Your task to perform on an android device: change your default location settings in chrome Image 0: 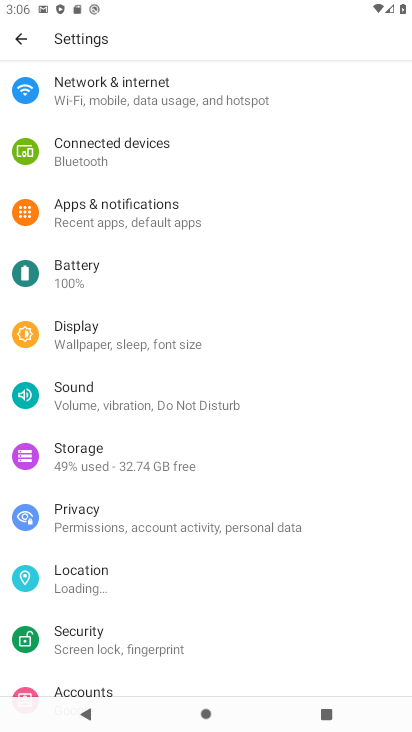
Step 0: press home button
Your task to perform on an android device: change your default location settings in chrome Image 1: 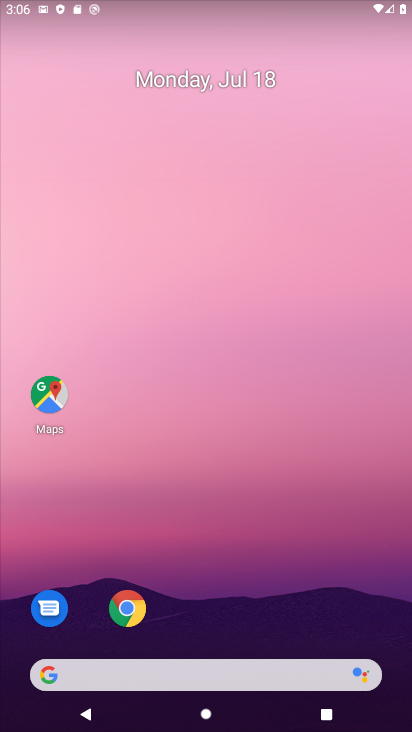
Step 1: drag from (204, 661) to (243, 220)
Your task to perform on an android device: change your default location settings in chrome Image 2: 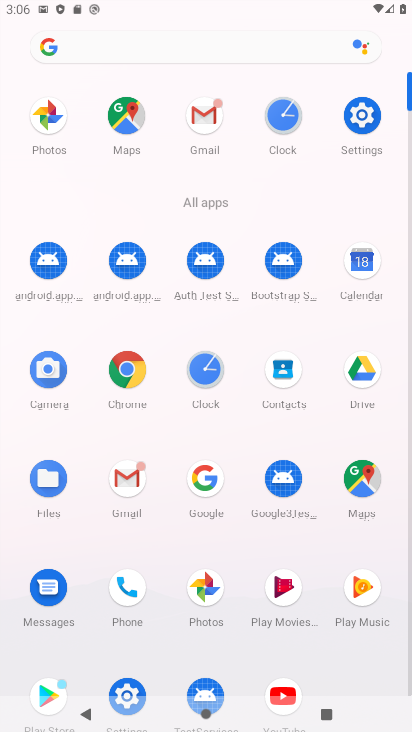
Step 2: click (128, 377)
Your task to perform on an android device: change your default location settings in chrome Image 3: 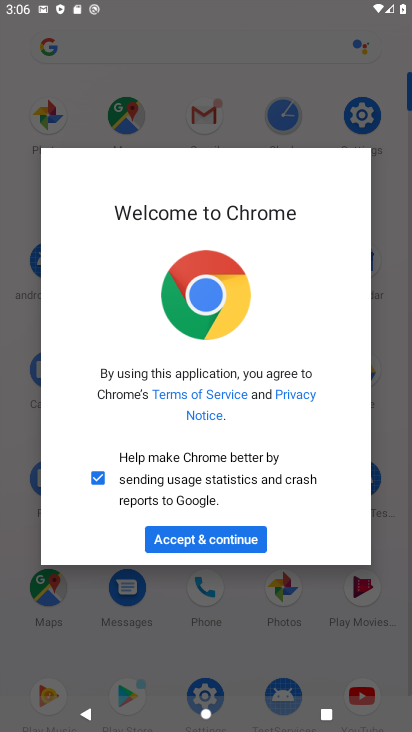
Step 3: click (227, 540)
Your task to perform on an android device: change your default location settings in chrome Image 4: 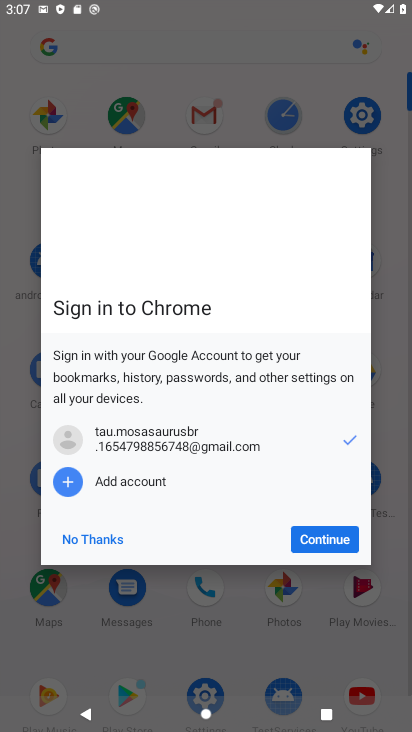
Step 4: click (322, 542)
Your task to perform on an android device: change your default location settings in chrome Image 5: 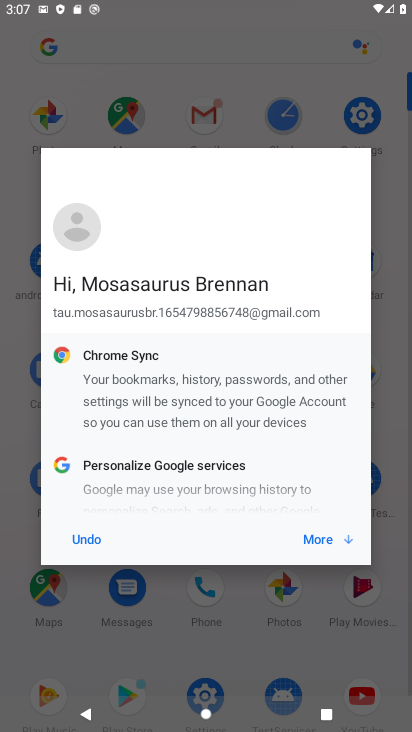
Step 5: click (340, 543)
Your task to perform on an android device: change your default location settings in chrome Image 6: 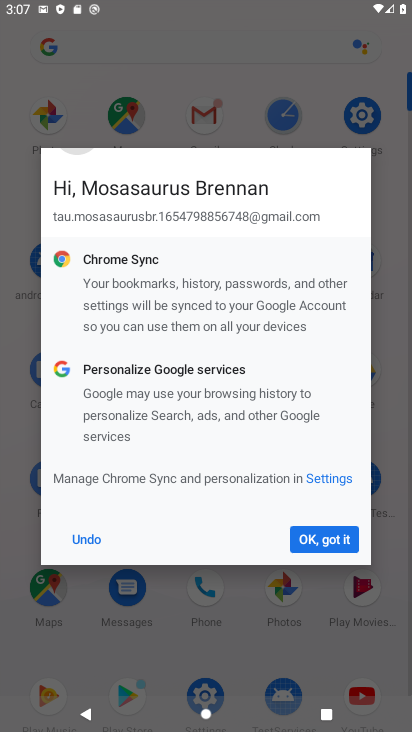
Step 6: click (340, 543)
Your task to perform on an android device: change your default location settings in chrome Image 7: 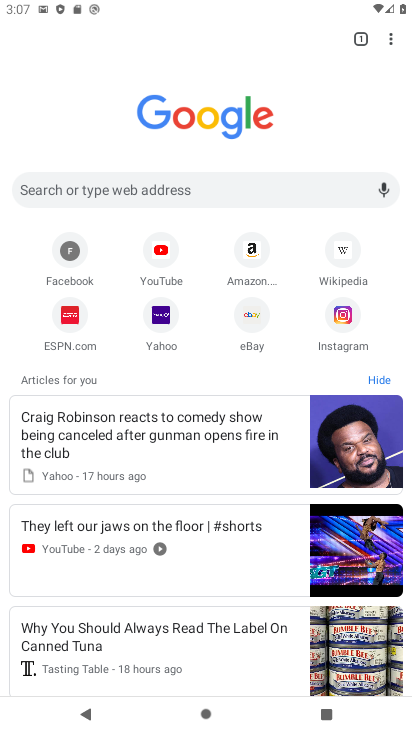
Step 7: click (391, 37)
Your task to perform on an android device: change your default location settings in chrome Image 8: 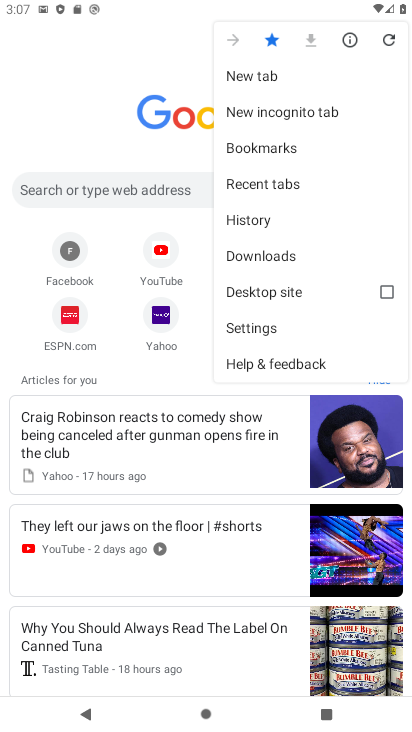
Step 8: click (259, 331)
Your task to perform on an android device: change your default location settings in chrome Image 9: 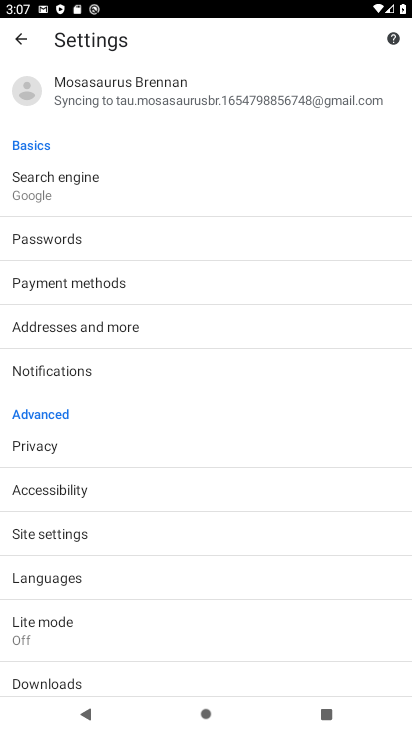
Step 9: click (99, 534)
Your task to perform on an android device: change your default location settings in chrome Image 10: 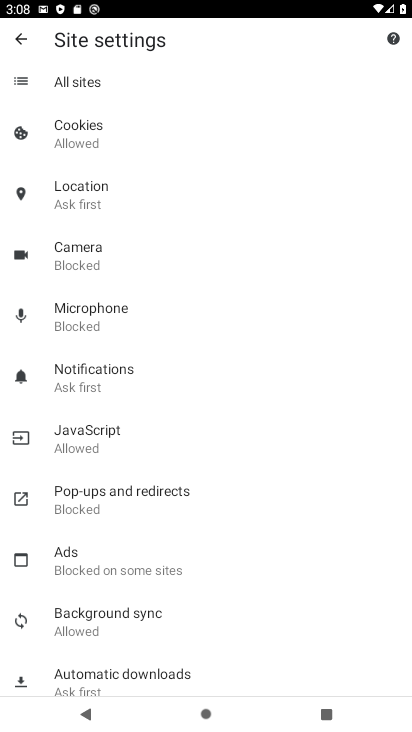
Step 10: click (106, 199)
Your task to perform on an android device: change your default location settings in chrome Image 11: 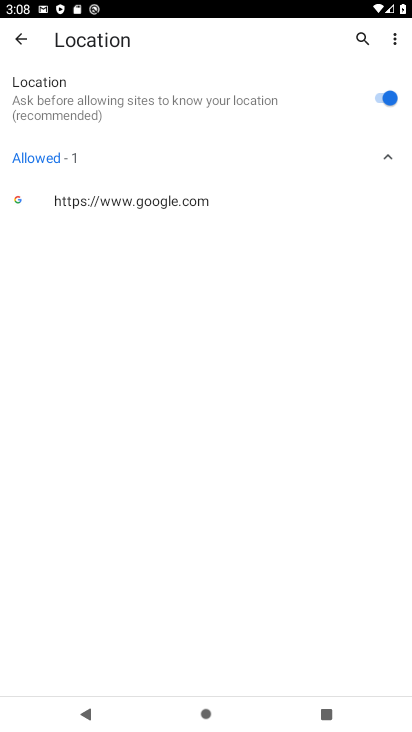
Step 11: click (277, 97)
Your task to perform on an android device: change your default location settings in chrome Image 12: 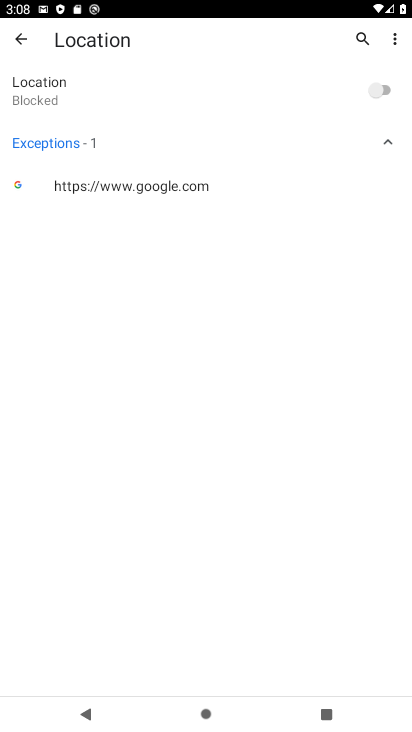
Step 12: task complete